Your task to perform on an android device: choose inbox layout in the gmail app Image 0: 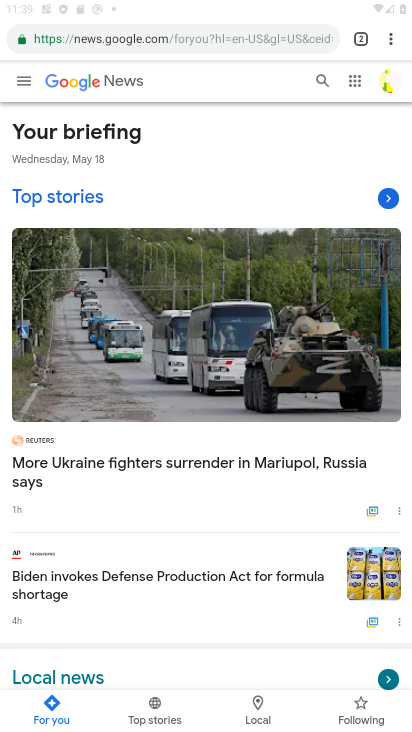
Step 0: drag from (291, 654) to (273, 99)
Your task to perform on an android device: choose inbox layout in the gmail app Image 1: 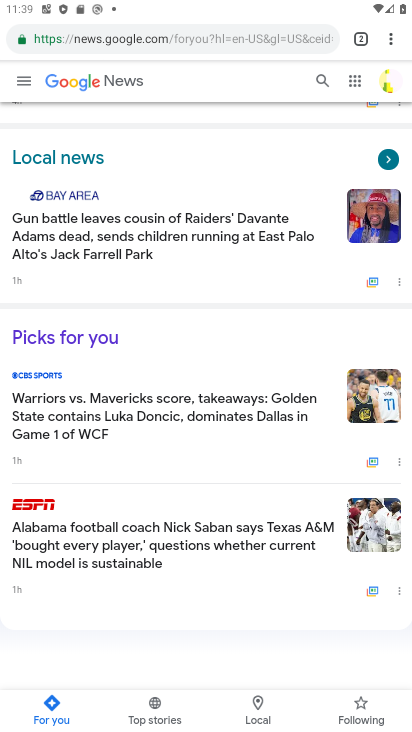
Step 1: press home button
Your task to perform on an android device: choose inbox layout in the gmail app Image 2: 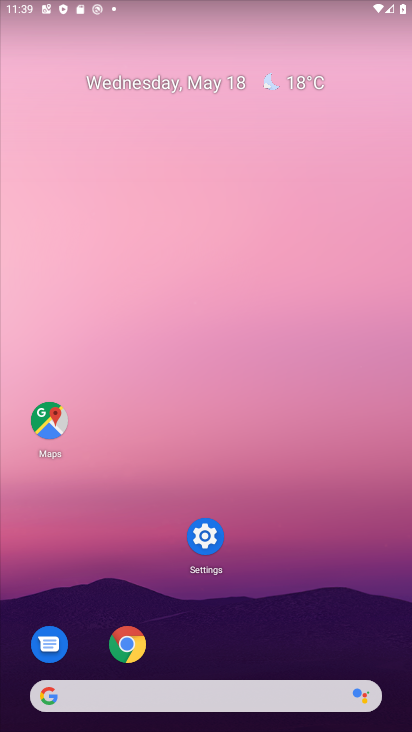
Step 2: drag from (305, 569) to (287, 115)
Your task to perform on an android device: choose inbox layout in the gmail app Image 3: 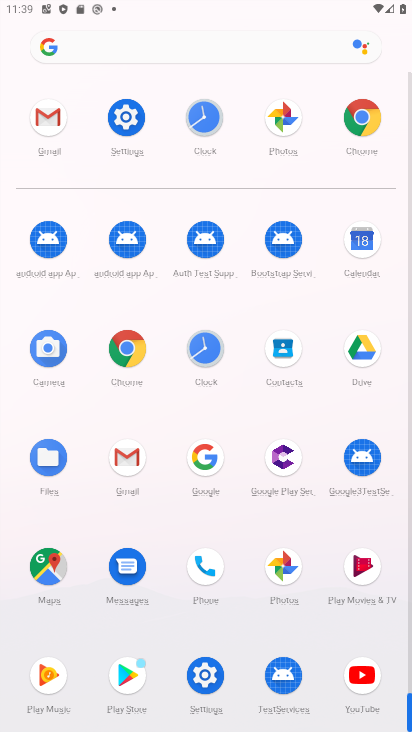
Step 3: click (128, 453)
Your task to perform on an android device: choose inbox layout in the gmail app Image 4: 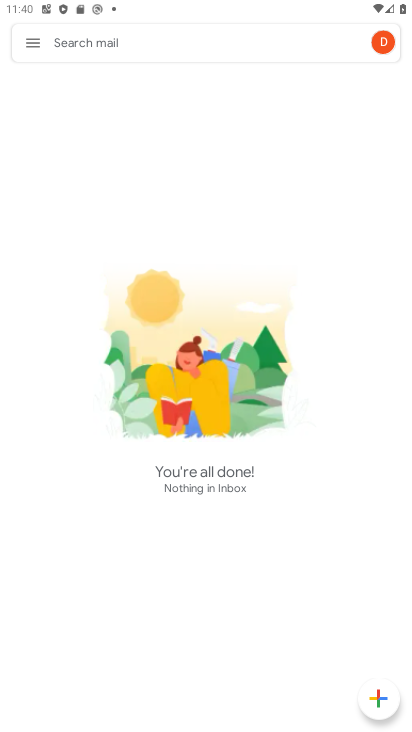
Step 4: click (42, 41)
Your task to perform on an android device: choose inbox layout in the gmail app Image 5: 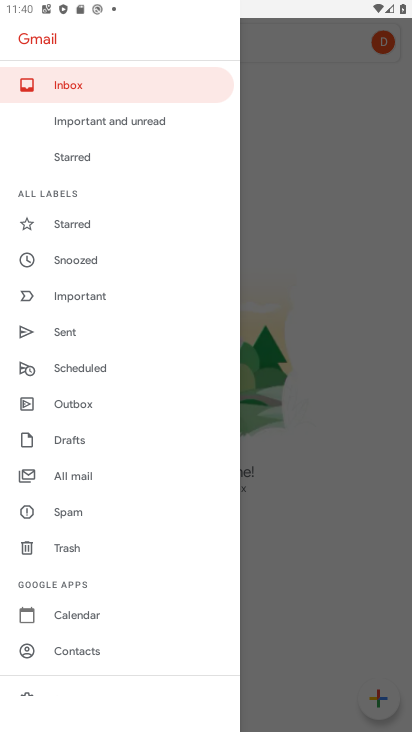
Step 5: drag from (86, 601) to (124, 203)
Your task to perform on an android device: choose inbox layout in the gmail app Image 6: 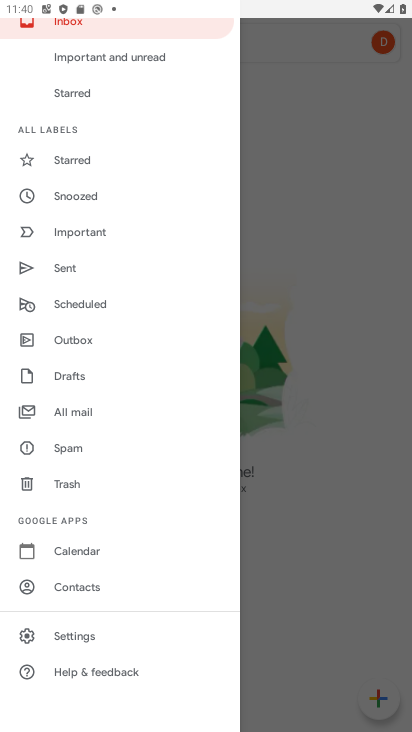
Step 6: click (61, 631)
Your task to perform on an android device: choose inbox layout in the gmail app Image 7: 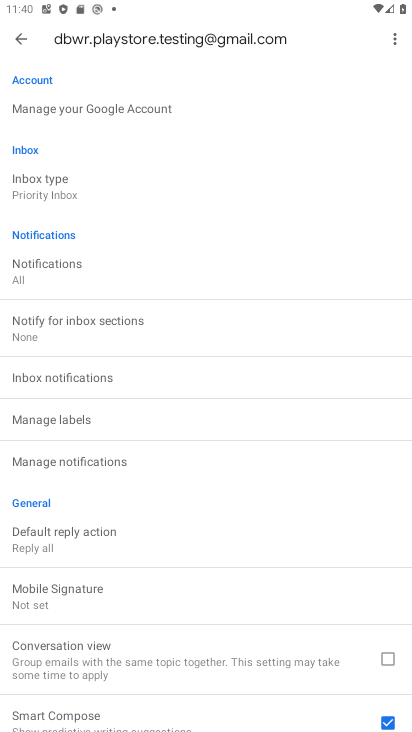
Step 7: drag from (130, 535) to (223, 284)
Your task to perform on an android device: choose inbox layout in the gmail app Image 8: 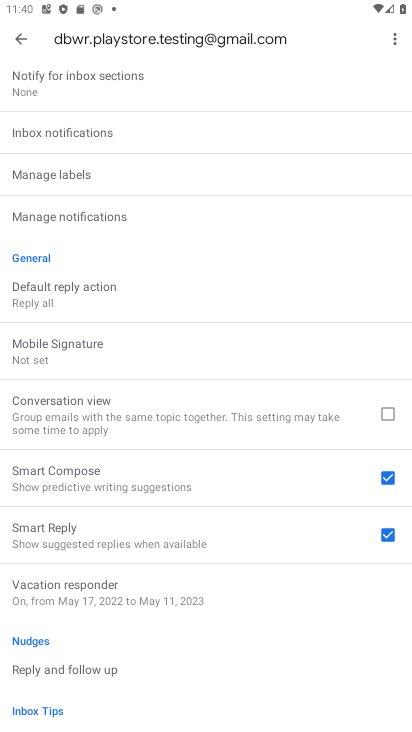
Step 8: drag from (166, 229) to (201, 677)
Your task to perform on an android device: choose inbox layout in the gmail app Image 9: 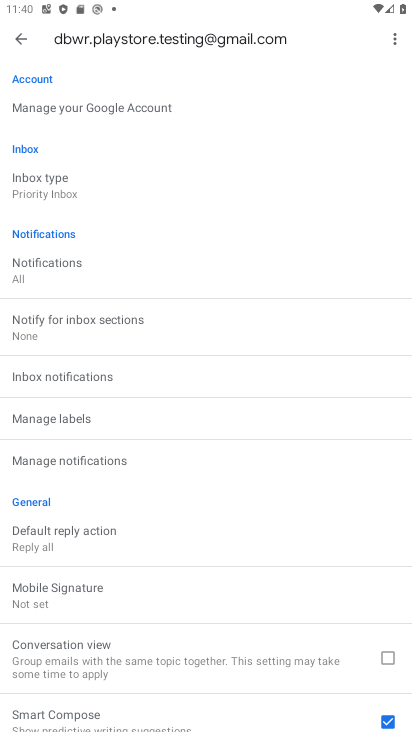
Step 9: click (60, 187)
Your task to perform on an android device: choose inbox layout in the gmail app Image 10: 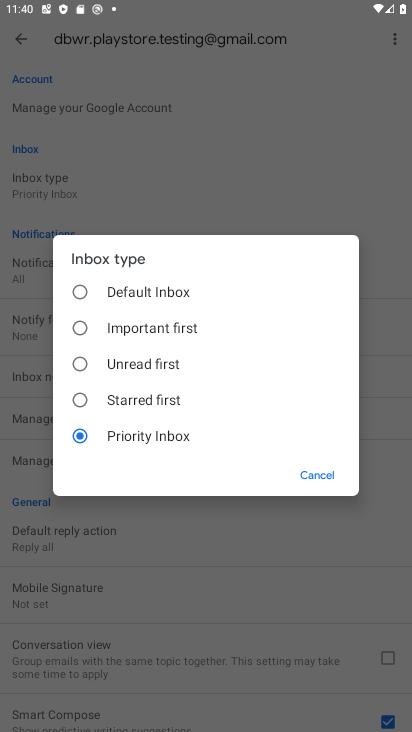
Step 10: task complete